Your task to perform on an android device: turn on javascript in the chrome app Image 0: 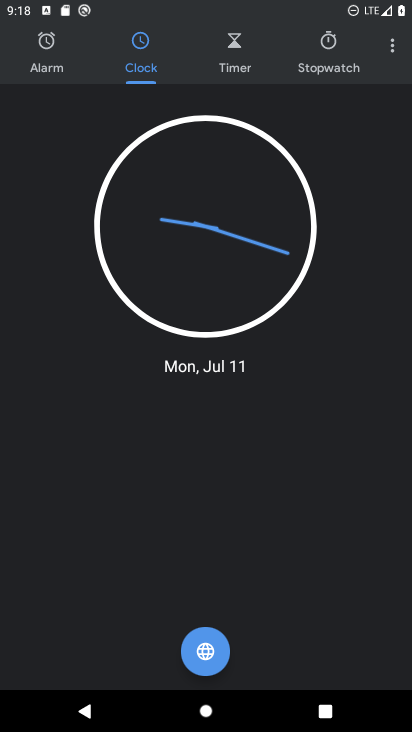
Step 0: press home button
Your task to perform on an android device: turn on javascript in the chrome app Image 1: 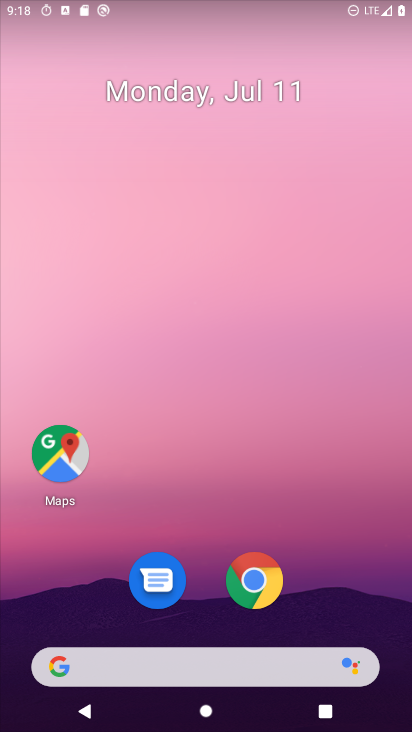
Step 1: click (264, 573)
Your task to perform on an android device: turn on javascript in the chrome app Image 2: 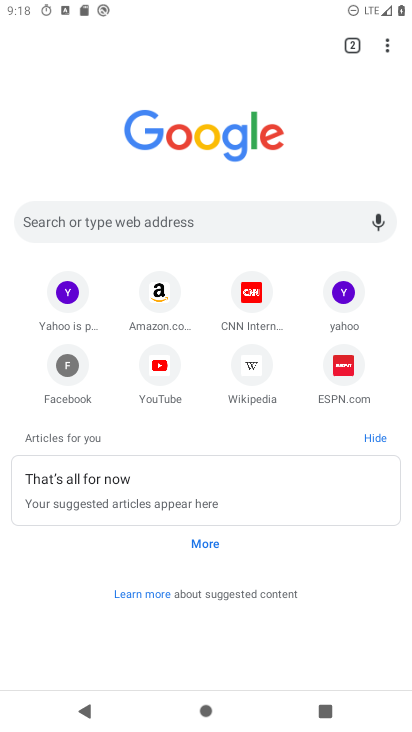
Step 2: click (386, 46)
Your task to perform on an android device: turn on javascript in the chrome app Image 3: 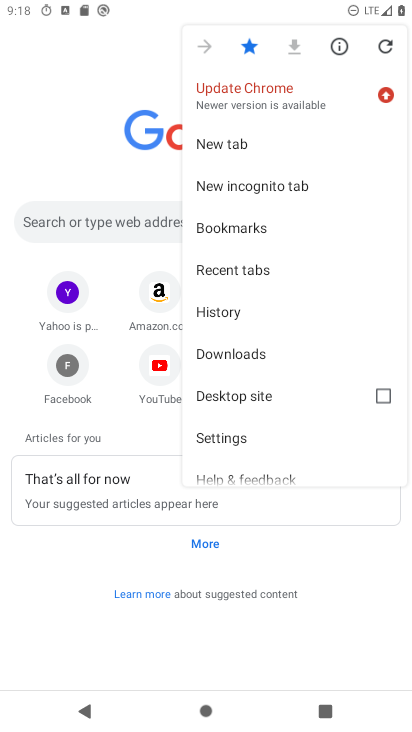
Step 3: click (234, 431)
Your task to perform on an android device: turn on javascript in the chrome app Image 4: 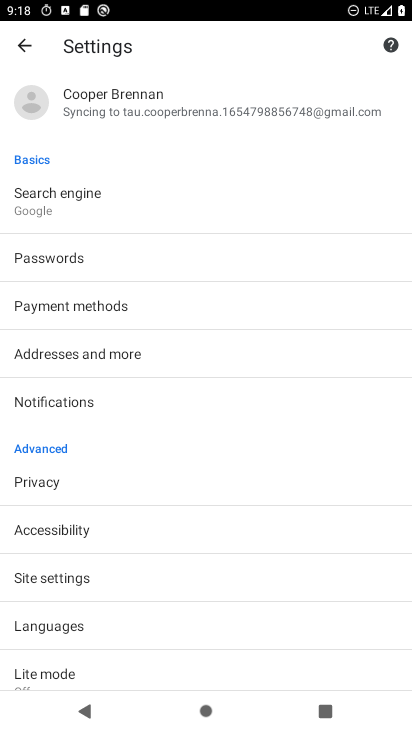
Step 4: click (61, 583)
Your task to perform on an android device: turn on javascript in the chrome app Image 5: 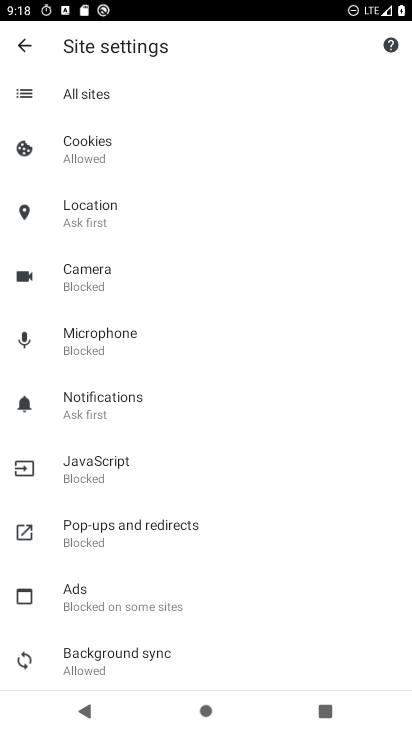
Step 5: click (116, 461)
Your task to perform on an android device: turn on javascript in the chrome app Image 6: 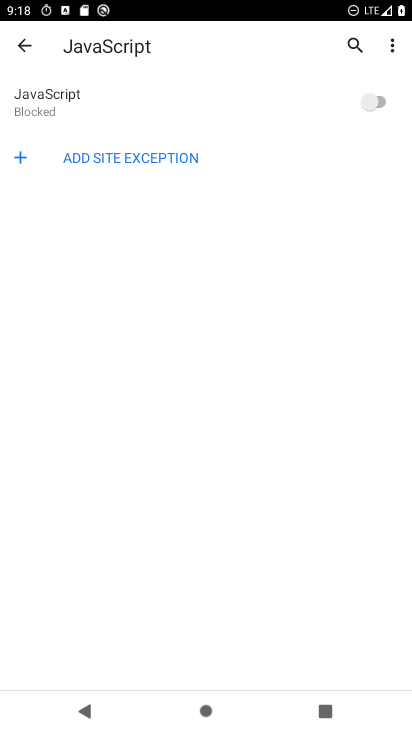
Step 6: click (380, 88)
Your task to perform on an android device: turn on javascript in the chrome app Image 7: 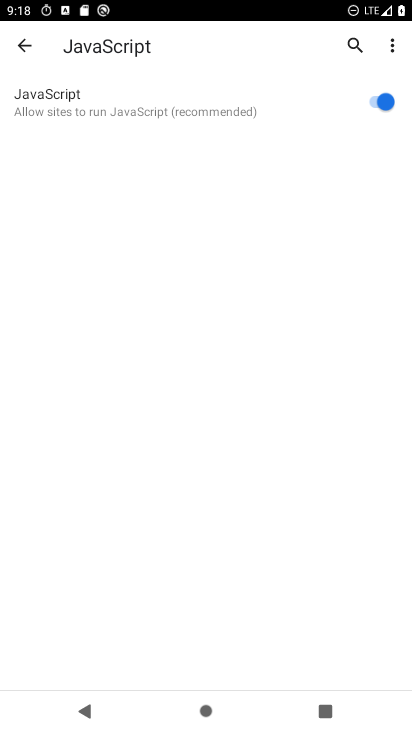
Step 7: task complete